Your task to perform on an android device: Open calendar and show me the third week of next month Image 0: 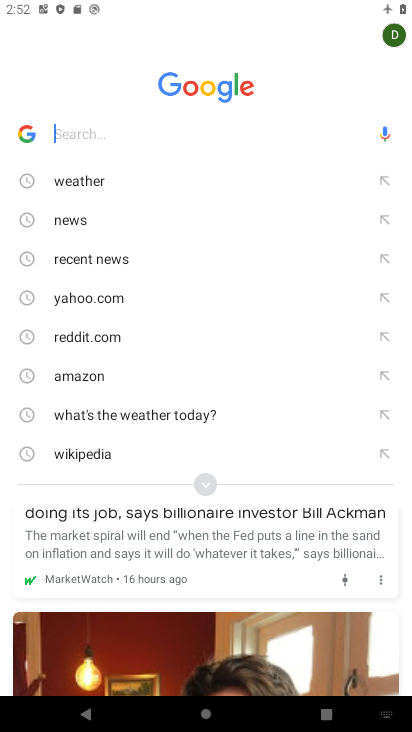
Step 0: press home button
Your task to perform on an android device: Open calendar and show me the third week of next month Image 1: 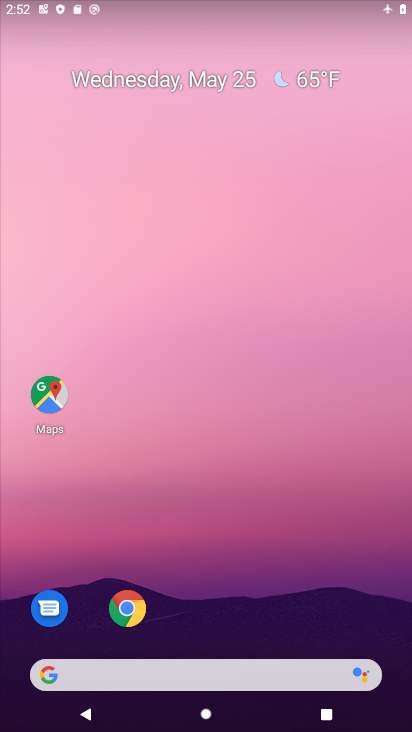
Step 1: drag from (353, 643) to (337, 19)
Your task to perform on an android device: Open calendar and show me the third week of next month Image 2: 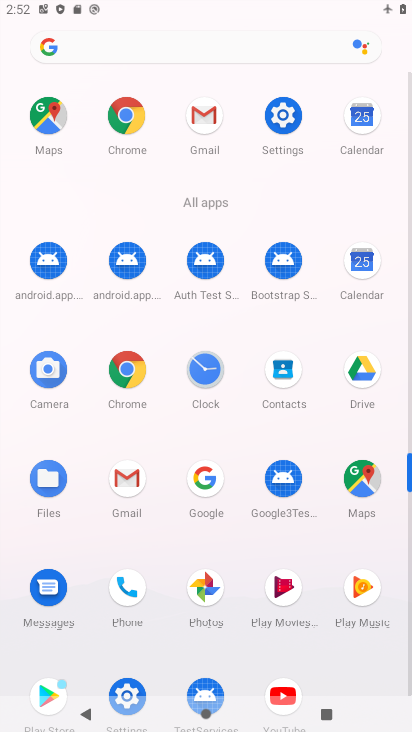
Step 2: click (355, 123)
Your task to perform on an android device: Open calendar and show me the third week of next month Image 3: 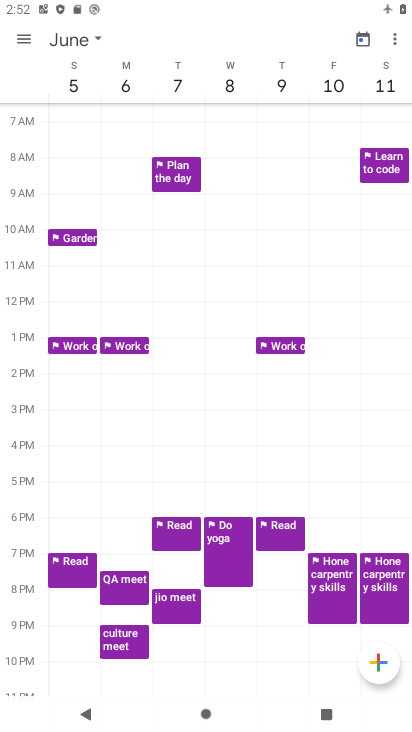
Step 3: task complete